Your task to perform on an android device: turn on priority inbox in the gmail app Image 0: 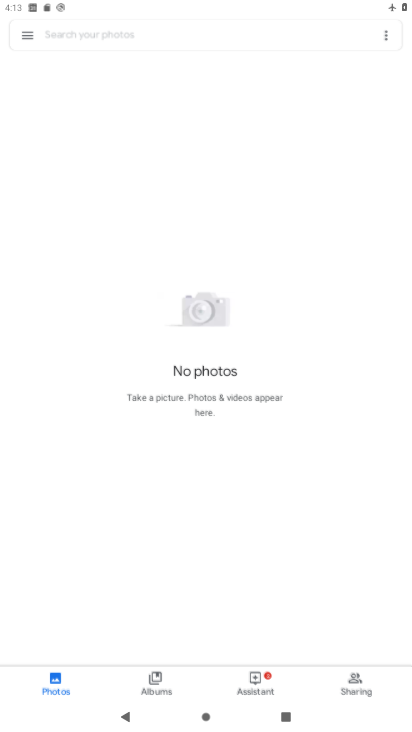
Step 0: drag from (400, 705) to (295, 161)
Your task to perform on an android device: turn on priority inbox in the gmail app Image 1: 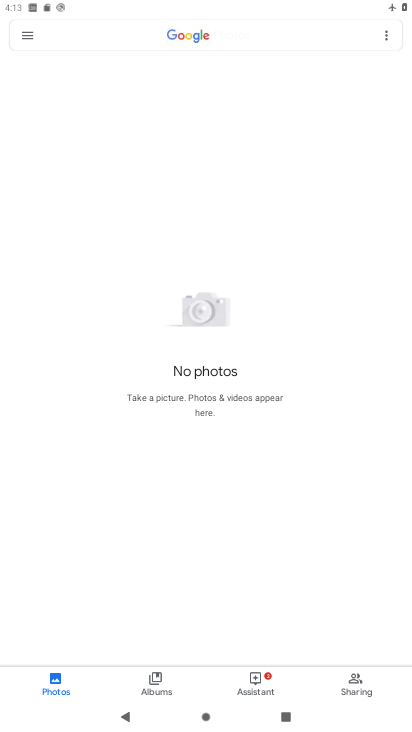
Step 1: press back button
Your task to perform on an android device: turn on priority inbox in the gmail app Image 2: 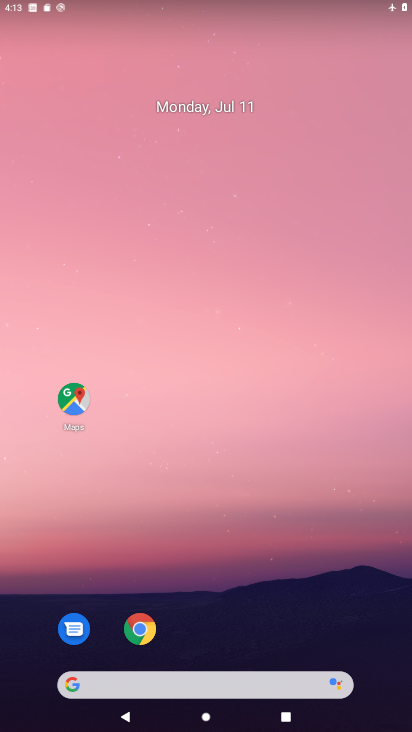
Step 2: drag from (392, 720) to (334, 118)
Your task to perform on an android device: turn on priority inbox in the gmail app Image 3: 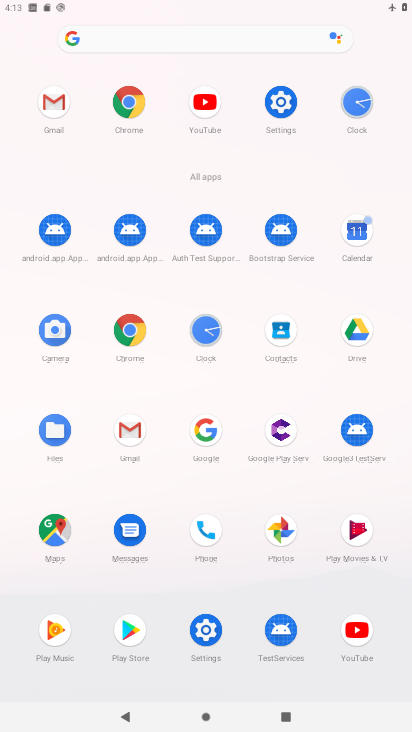
Step 3: click (134, 430)
Your task to perform on an android device: turn on priority inbox in the gmail app Image 4: 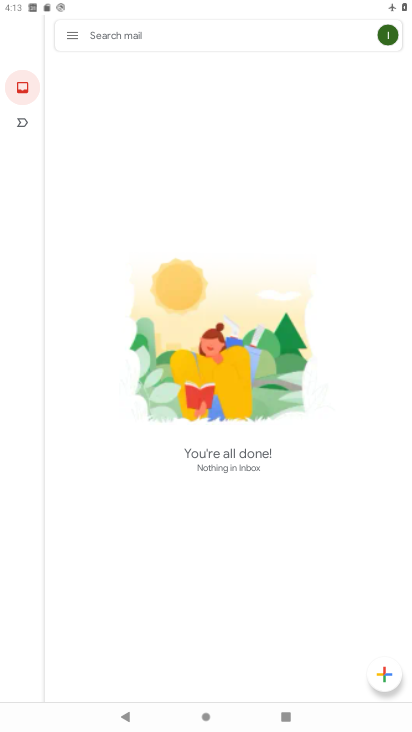
Step 4: click (71, 36)
Your task to perform on an android device: turn on priority inbox in the gmail app Image 5: 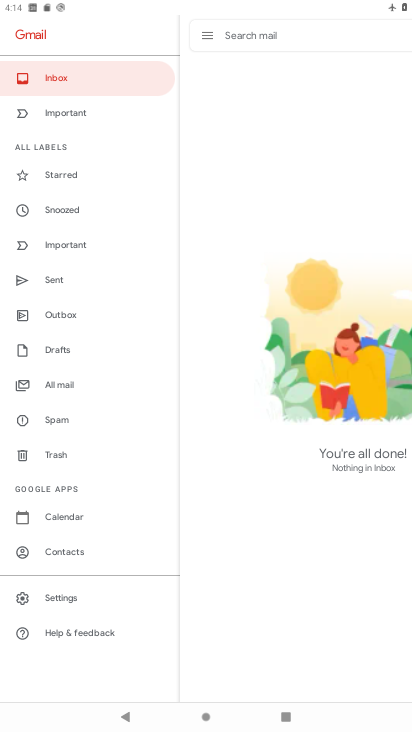
Step 5: click (62, 598)
Your task to perform on an android device: turn on priority inbox in the gmail app Image 6: 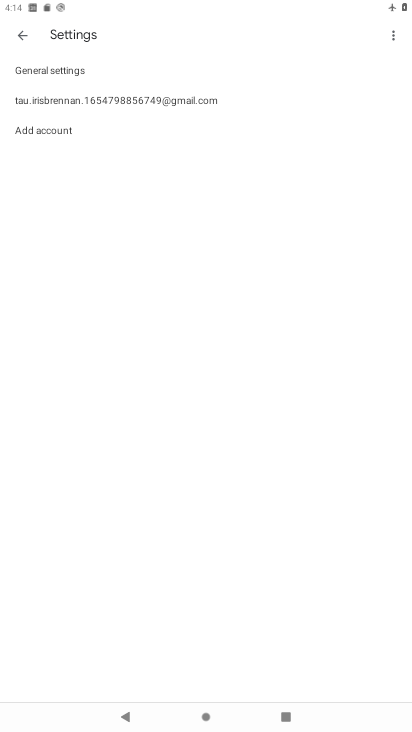
Step 6: click (114, 99)
Your task to perform on an android device: turn on priority inbox in the gmail app Image 7: 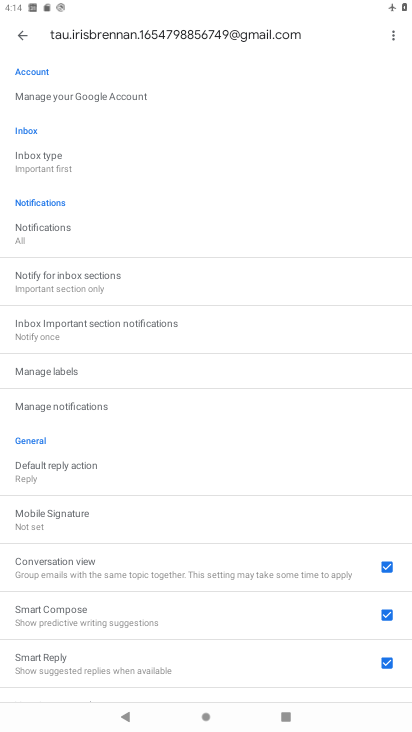
Step 7: click (42, 163)
Your task to perform on an android device: turn on priority inbox in the gmail app Image 8: 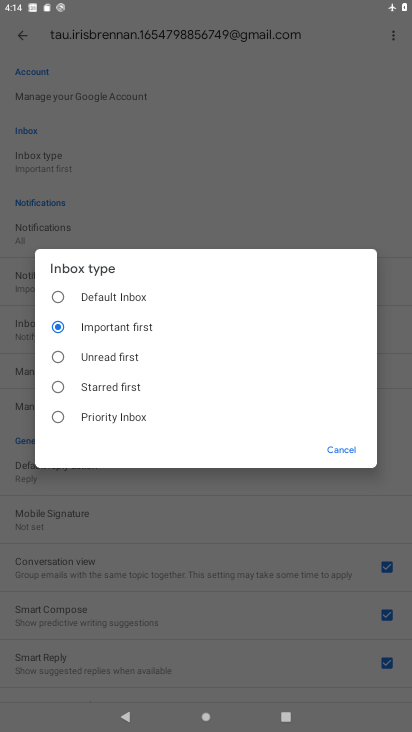
Step 8: click (67, 417)
Your task to perform on an android device: turn on priority inbox in the gmail app Image 9: 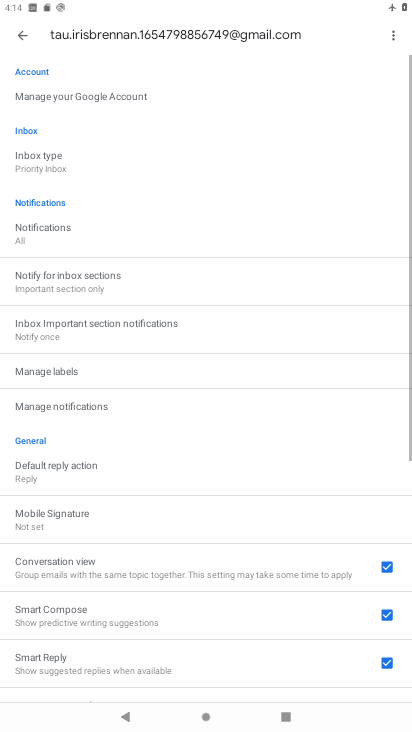
Step 9: task complete